Your task to perform on an android device: change the upload size in google photos Image 0: 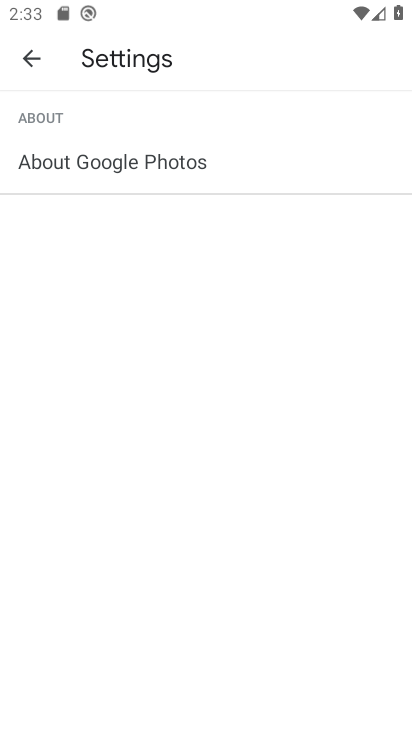
Step 0: press back button
Your task to perform on an android device: change the upload size in google photos Image 1: 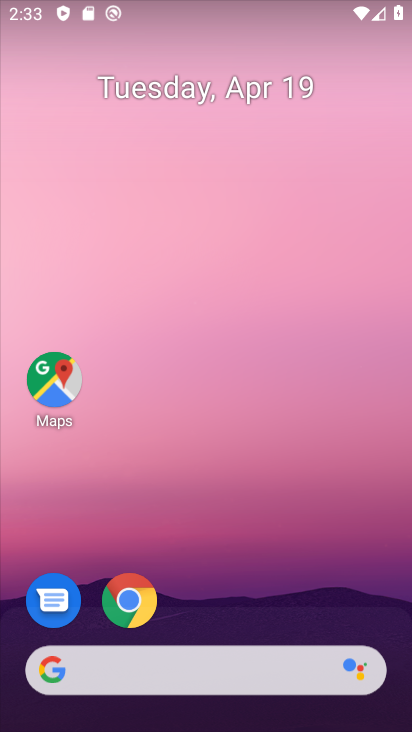
Step 1: drag from (194, 651) to (294, 163)
Your task to perform on an android device: change the upload size in google photos Image 2: 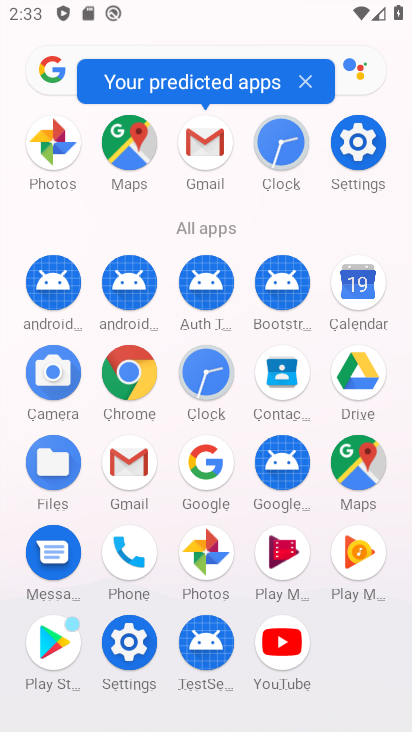
Step 2: click (204, 558)
Your task to perform on an android device: change the upload size in google photos Image 3: 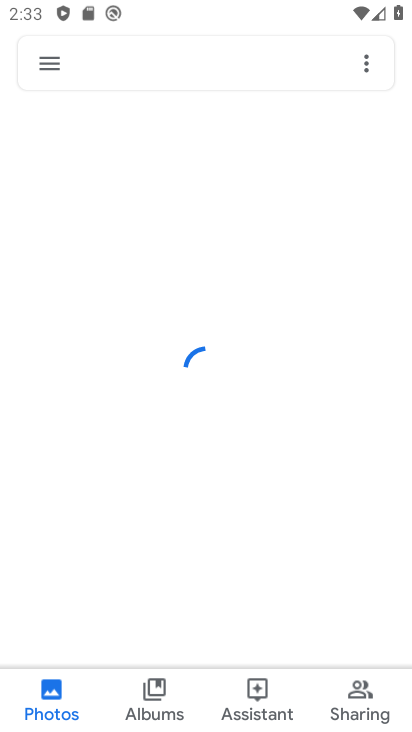
Step 3: click (44, 66)
Your task to perform on an android device: change the upload size in google photos Image 4: 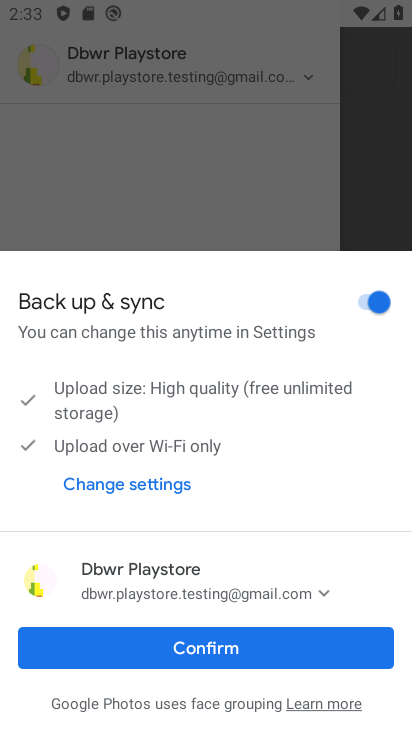
Step 4: click (206, 641)
Your task to perform on an android device: change the upload size in google photos Image 5: 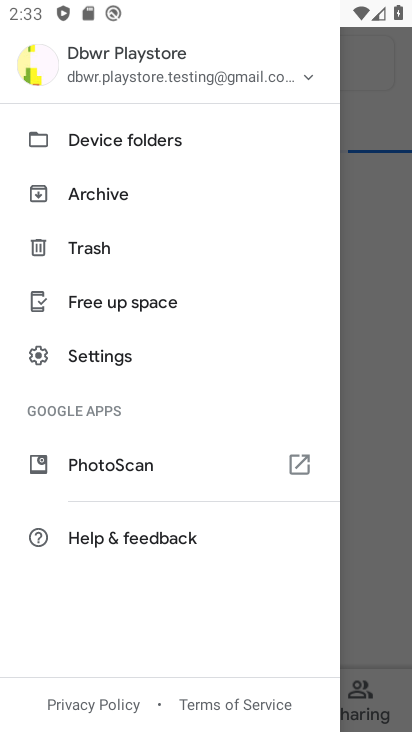
Step 5: click (138, 365)
Your task to perform on an android device: change the upload size in google photos Image 6: 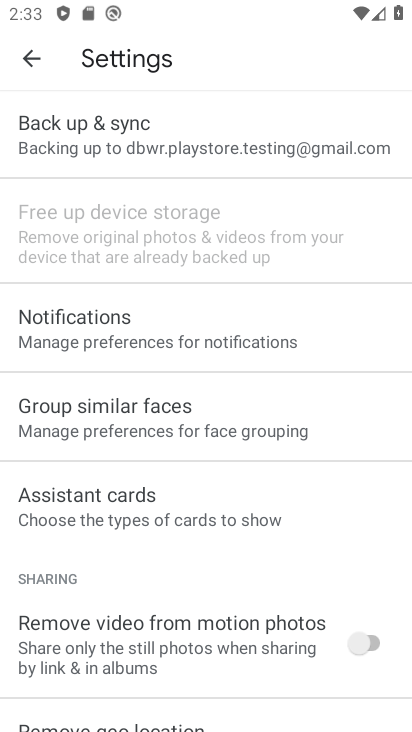
Step 6: click (144, 159)
Your task to perform on an android device: change the upload size in google photos Image 7: 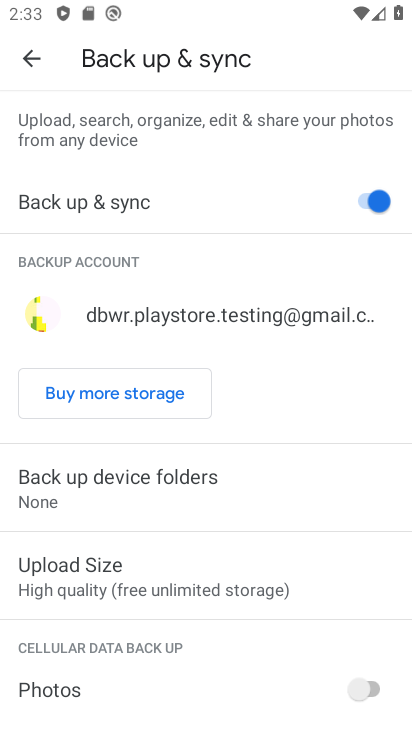
Step 7: click (123, 586)
Your task to perform on an android device: change the upload size in google photos Image 8: 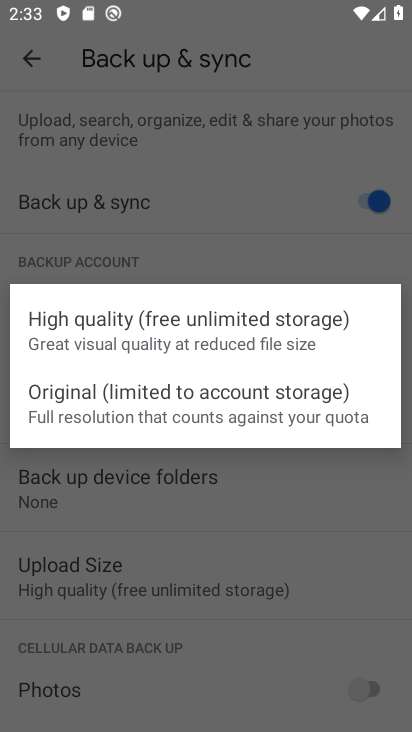
Step 8: click (193, 425)
Your task to perform on an android device: change the upload size in google photos Image 9: 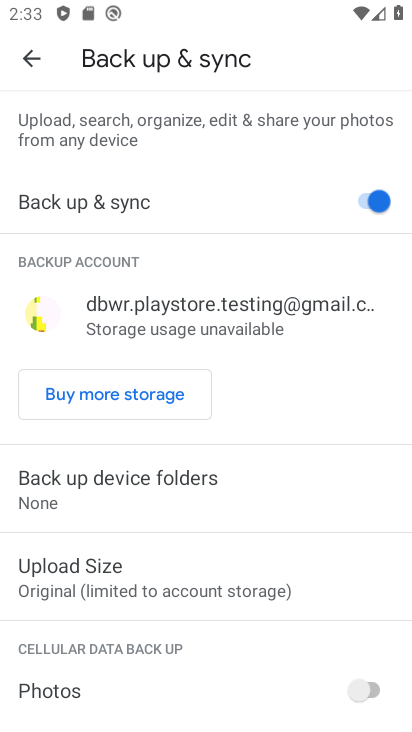
Step 9: task complete